Your task to perform on an android device: Go to network settings Image 0: 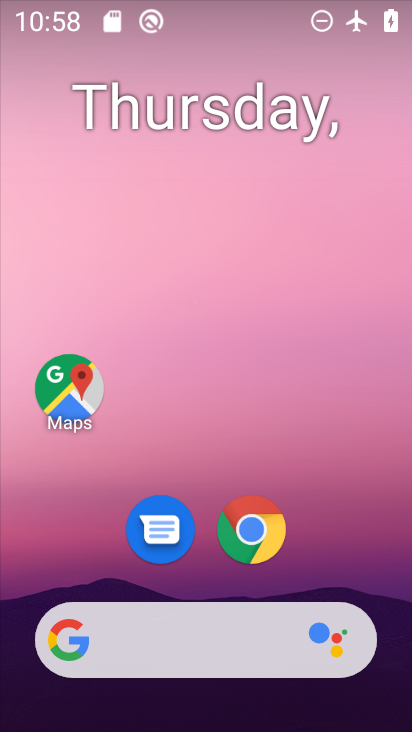
Step 0: drag from (191, 511) to (218, 0)
Your task to perform on an android device: Go to network settings Image 1: 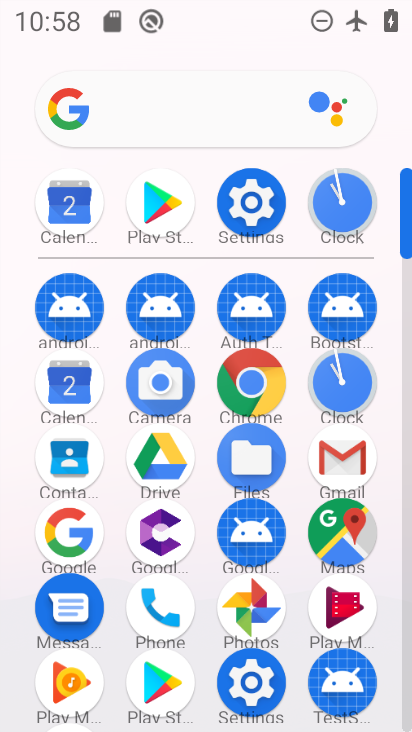
Step 1: click (263, 200)
Your task to perform on an android device: Go to network settings Image 2: 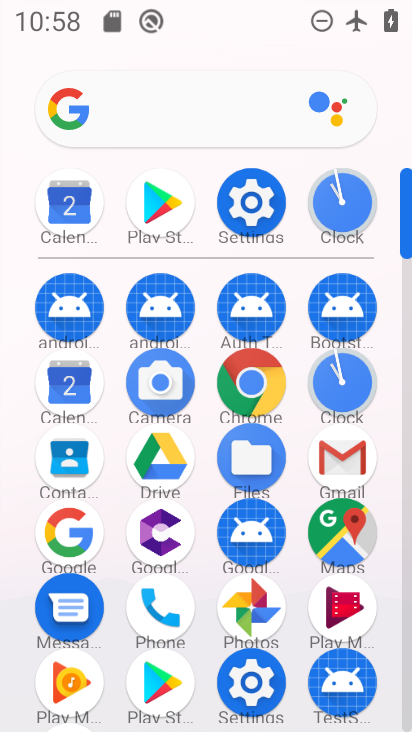
Step 2: click (263, 200)
Your task to perform on an android device: Go to network settings Image 3: 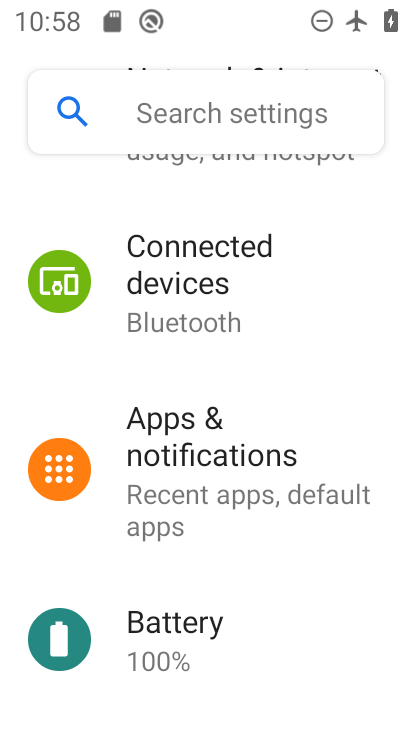
Step 3: drag from (257, 264) to (241, 707)
Your task to perform on an android device: Go to network settings Image 4: 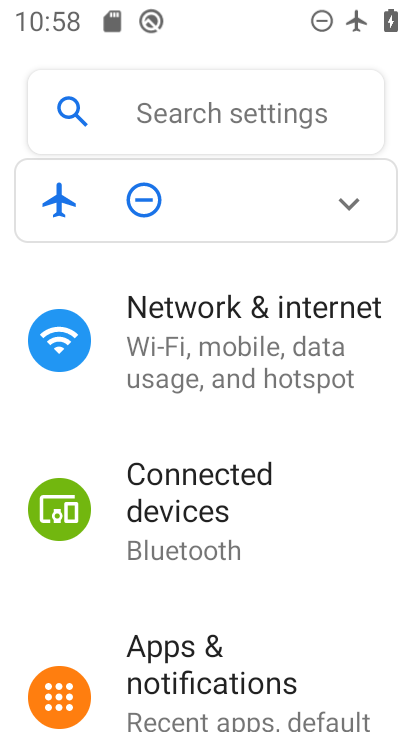
Step 4: click (304, 326)
Your task to perform on an android device: Go to network settings Image 5: 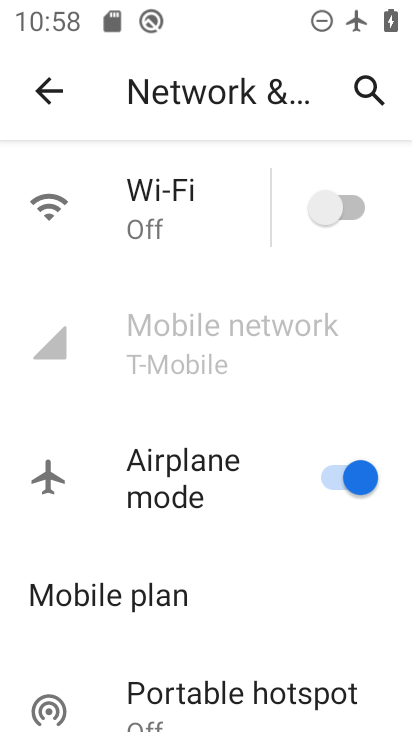
Step 5: task complete